Your task to perform on an android device: turn notification dots off Image 0: 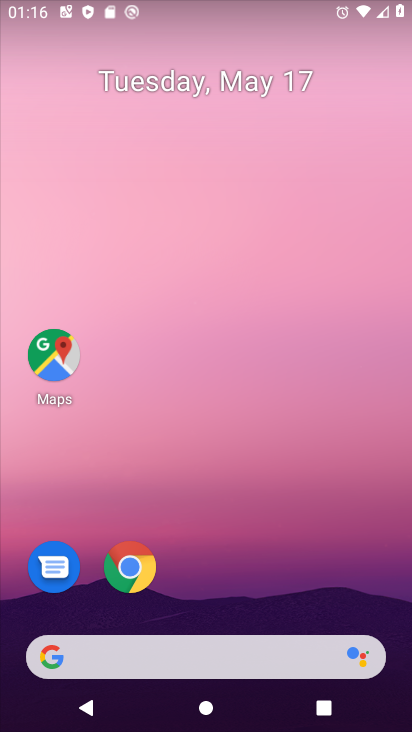
Step 0: drag from (269, 542) to (142, 119)
Your task to perform on an android device: turn notification dots off Image 1: 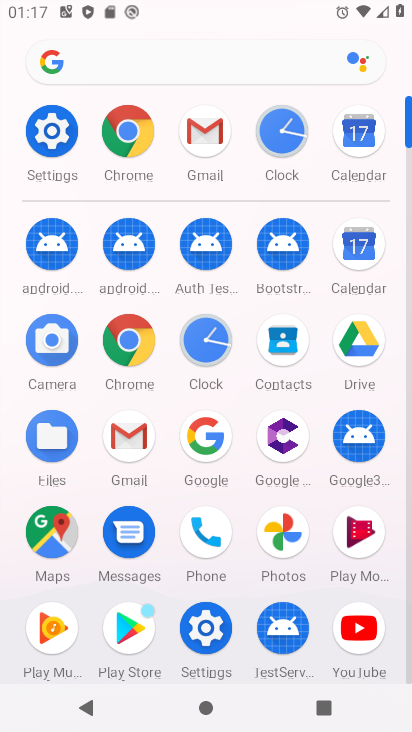
Step 1: click (50, 129)
Your task to perform on an android device: turn notification dots off Image 2: 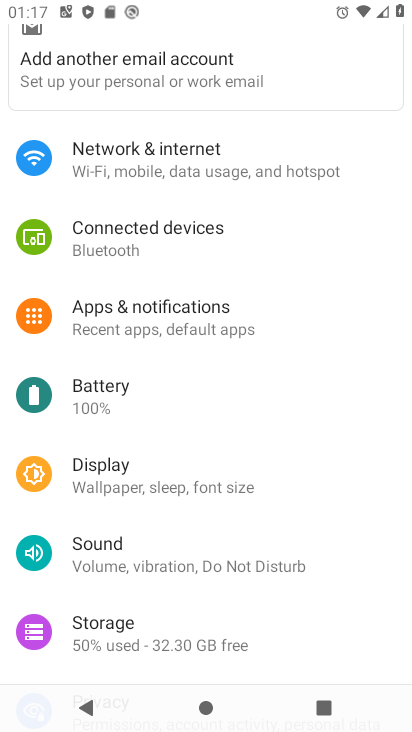
Step 2: click (166, 301)
Your task to perform on an android device: turn notification dots off Image 3: 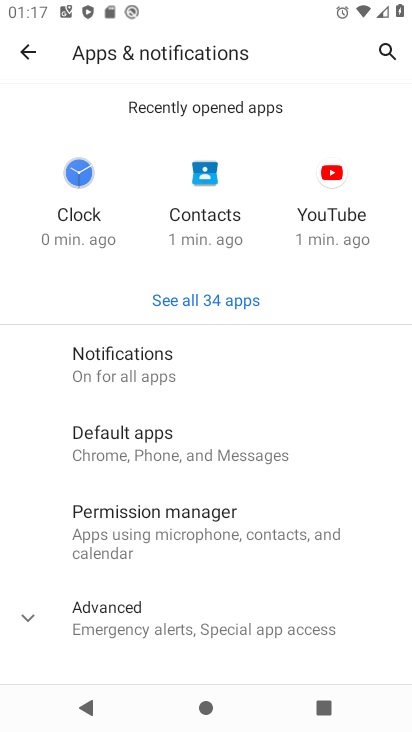
Step 3: click (133, 354)
Your task to perform on an android device: turn notification dots off Image 4: 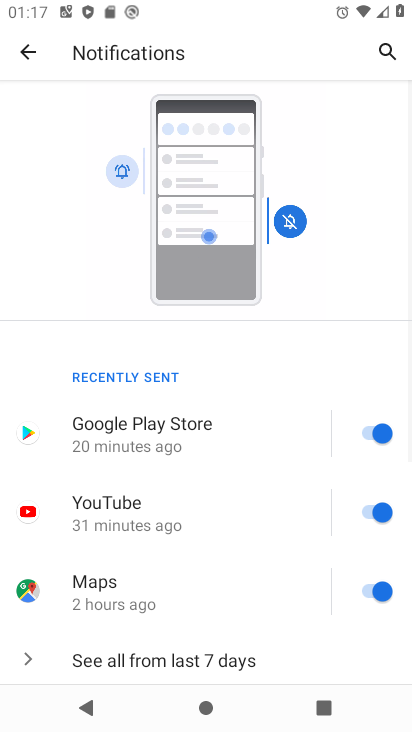
Step 4: drag from (252, 564) to (151, 267)
Your task to perform on an android device: turn notification dots off Image 5: 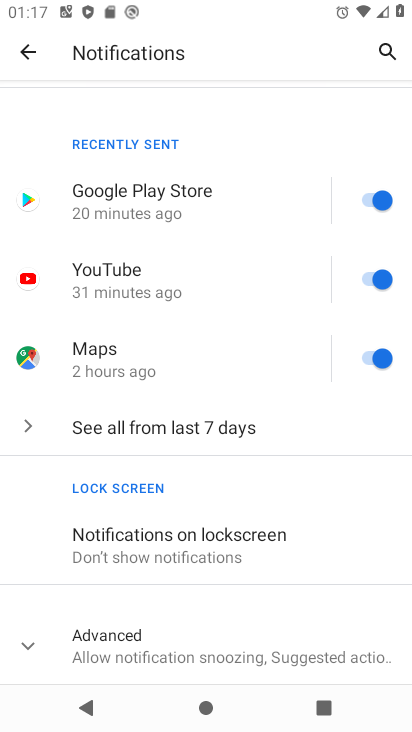
Step 5: click (32, 647)
Your task to perform on an android device: turn notification dots off Image 6: 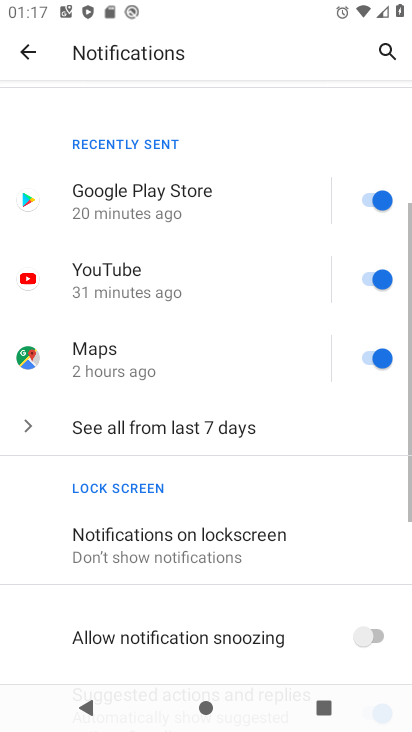
Step 6: drag from (253, 611) to (181, 352)
Your task to perform on an android device: turn notification dots off Image 7: 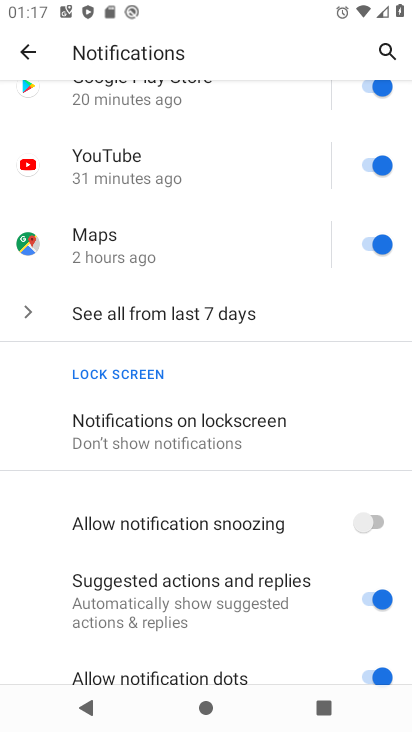
Step 7: drag from (298, 613) to (275, 477)
Your task to perform on an android device: turn notification dots off Image 8: 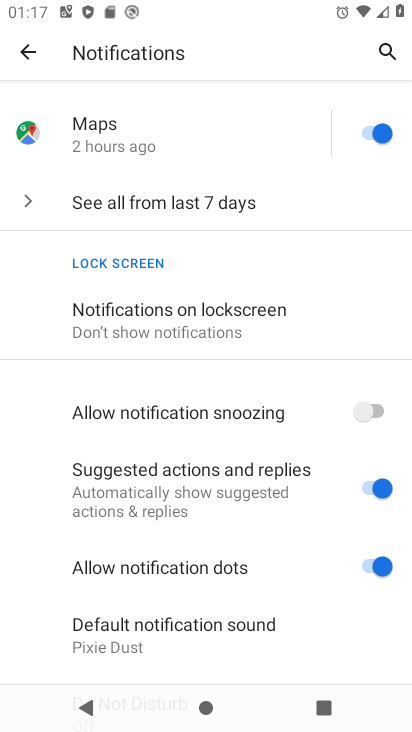
Step 8: click (379, 584)
Your task to perform on an android device: turn notification dots off Image 9: 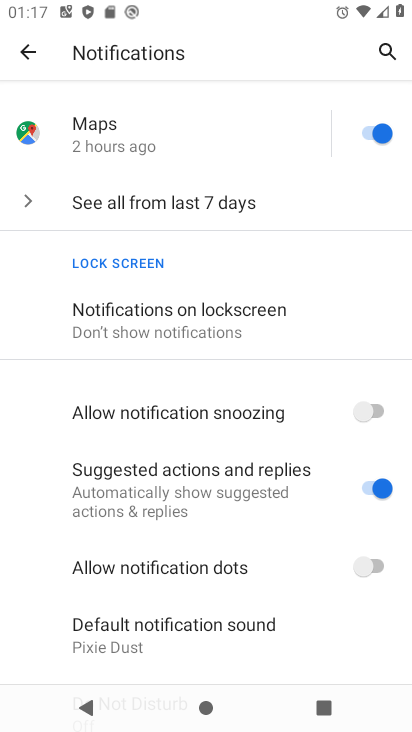
Step 9: task complete